Your task to perform on an android device: snooze an email in the gmail app Image 0: 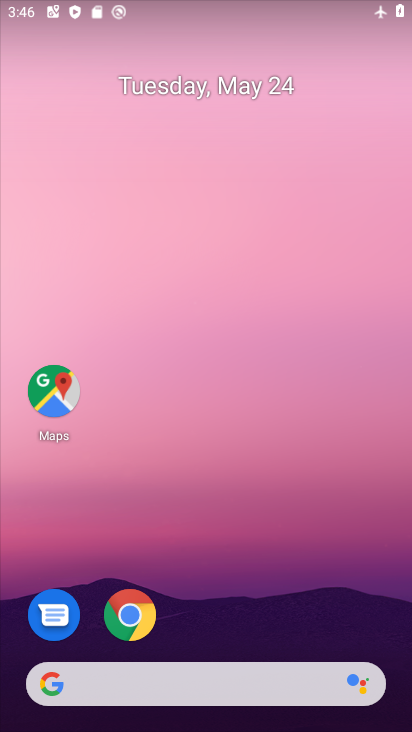
Step 0: drag from (206, 729) to (195, 127)
Your task to perform on an android device: snooze an email in the gmail app Image 1: 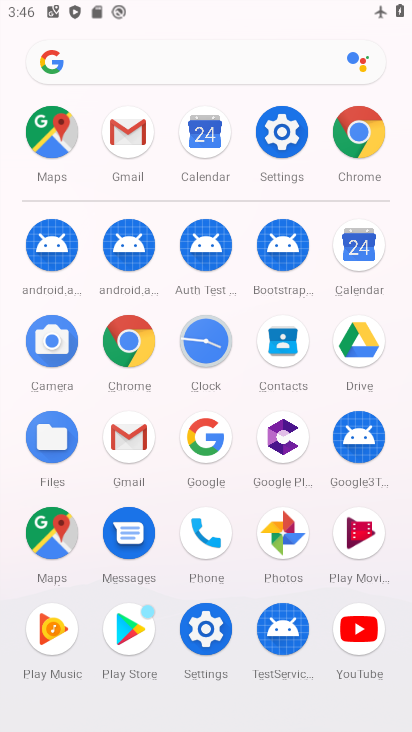
Step 1: click (140, 438)
Your task to perform on an android device: snooze an email in the gmail app Image 2: 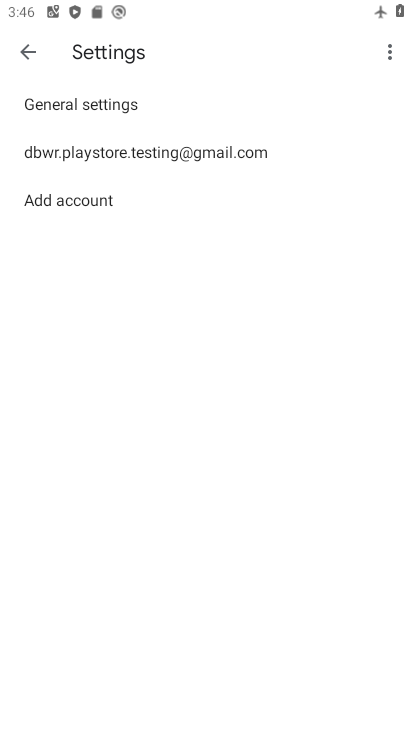
Step 2: click (26, 54)
Your task to perform on an android device: snooze an email in the gmail app Image 3: 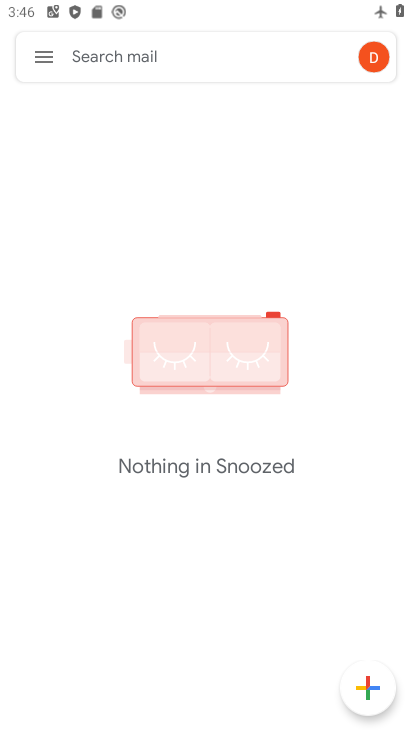
Step 3: click (45, 50)
Your task to perform on an android device: snooze an email in the gmail app Image 4: 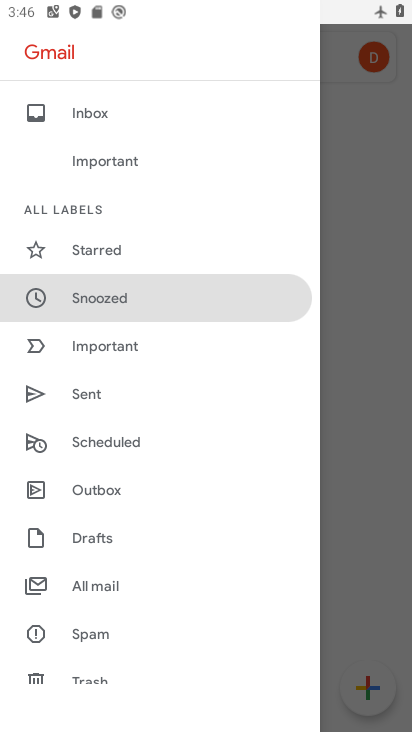
Step 4: click (85, 109)
Your task to perform on an android device: snooze an email in the gmail app Image 5: 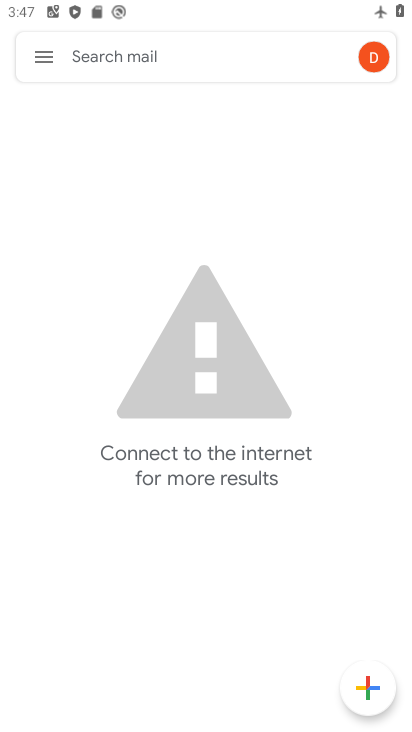
Step 5: task complete